Your task to perform on an android device: change your default location settings in chrome Image 0: 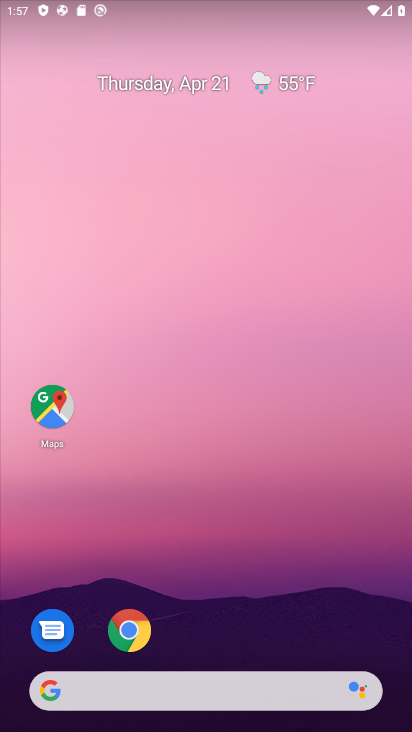
Step 0: click (135, 645)
Your task to perform on an android device: change your default location settings in chrome Image 1: 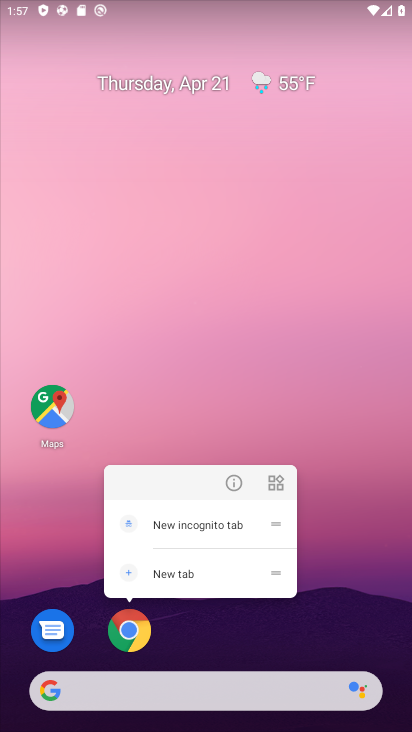
Step 1: click (130, 637)
Your task to perform on an android device: change your default location settings in chrome Image 2: 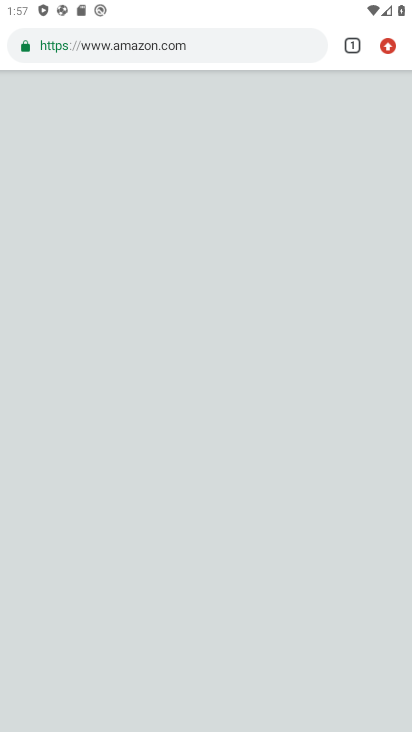
Step 2: click (391, 46)
Your task to perform on an android device: change your default location settings in chrome Image 3: 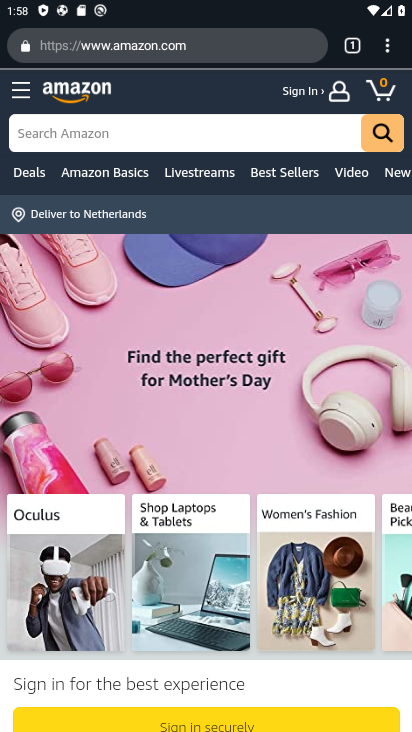
Step 3: click (387, 49)
Your task to perform on an android device: change your default location settings in chrome Image 4: 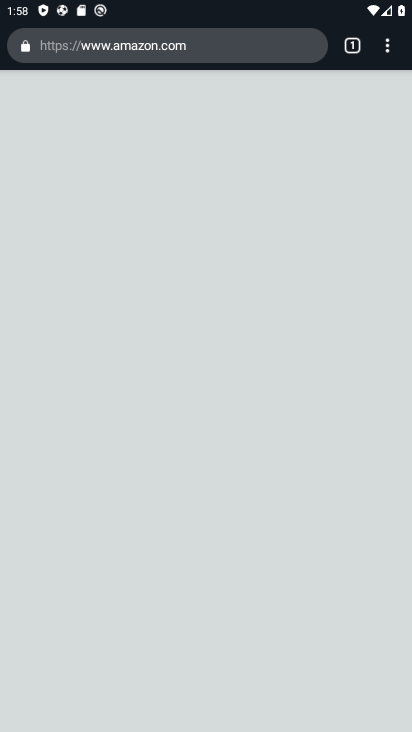
Step 4: drag from (387, 49) to (247, 601)
Your task to perform on an android device: change your default location settings in chrome Image 5: 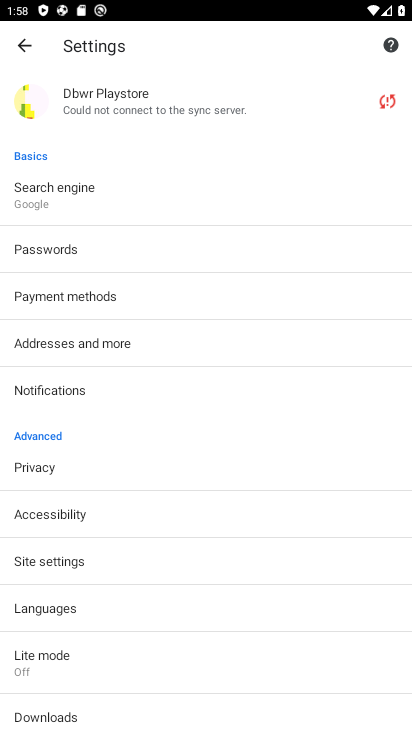
Step 5: click (61, 561)
Your task to perform on an android device: change your default location settings in chrome Image 6: 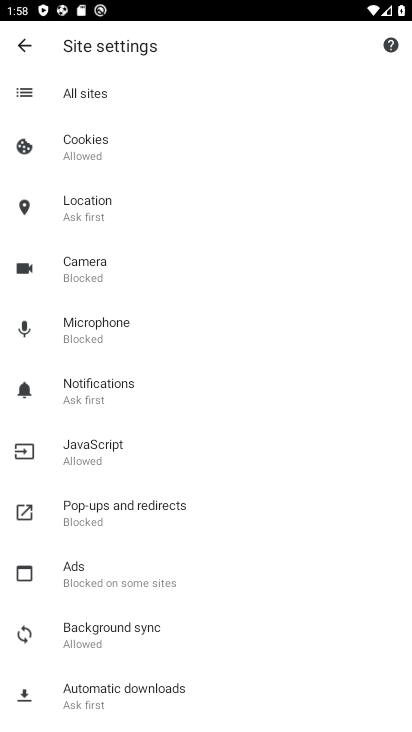
Step 6: click (105, 205)
Your task to perform on an android device: change your default location settings in chrome Image 7: 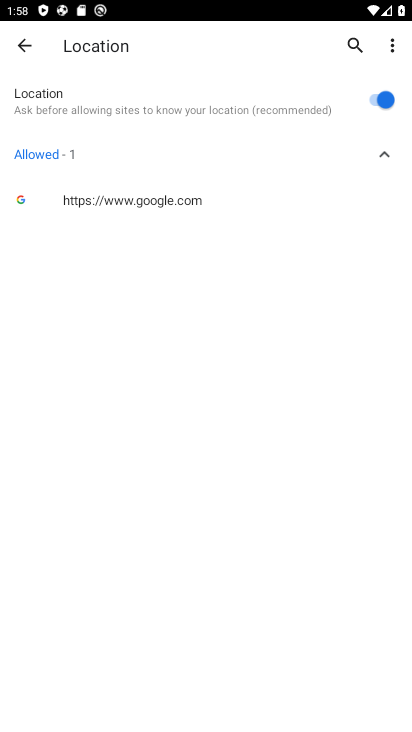
Step 7: click (382, 102)
Your task to perform on an android device: change your default location settings in chrome Image 8: 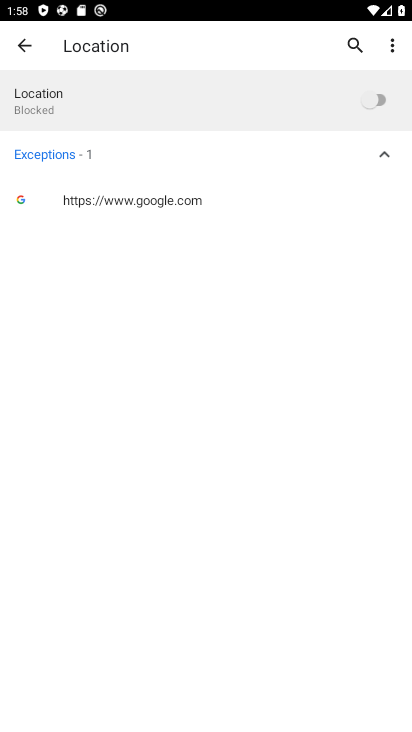
Step 8: task complete